Your task to perform on an android device: Go to accessibility settings Image 0: 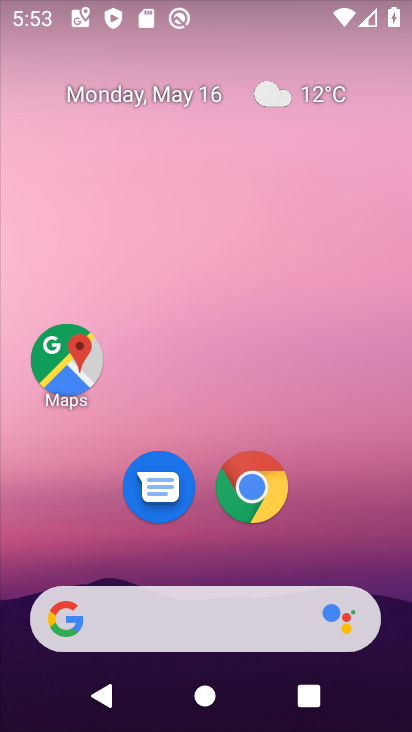
Step 0: drag from (356, 496) to (228, 13)
Your task to perform on an android device: Go to accessibility settings Image 1: 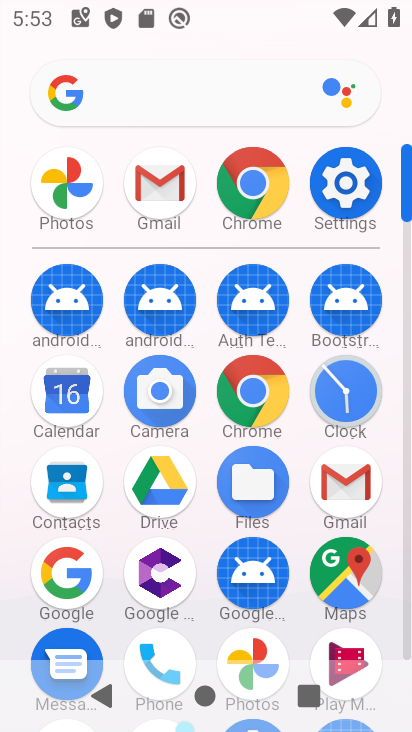
Step 1: click (339, 171)
Your task to perform on an android device: Go to accessibility settings Image 2: 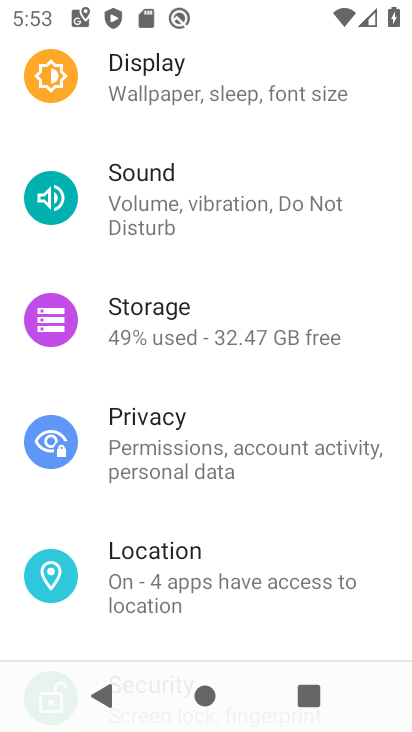
Step 2: drag from (287, 552) to (175, 205)
Your task to perform on an android device: Go to accessibility settings Image 3: 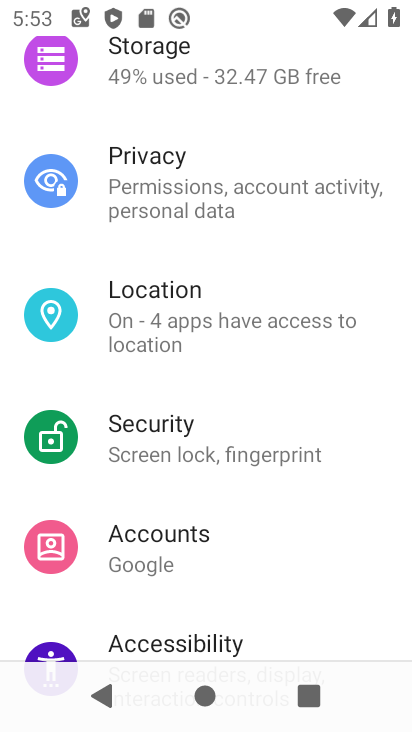
Step 3: click (199, 632)
Your task to perform on an android device: Go to accessibility settings Image 4: 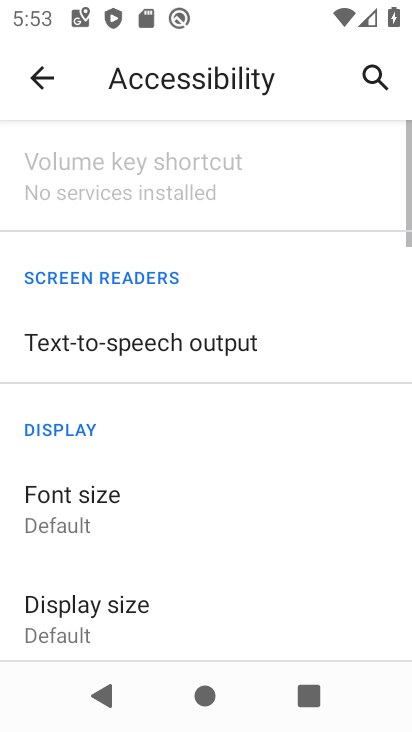
Step 4: task complete